Your task to perform on an android device: Go to ESPN.com Image 0: 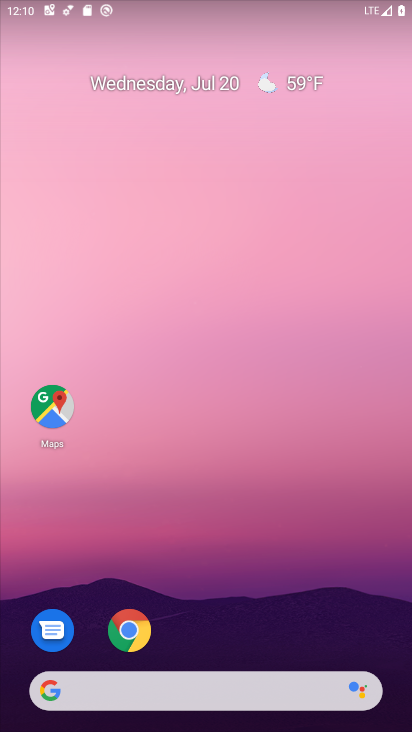
Step 0: click (129, 632)
Your task to perform on an android device: Go to ESPN.com Image 1: 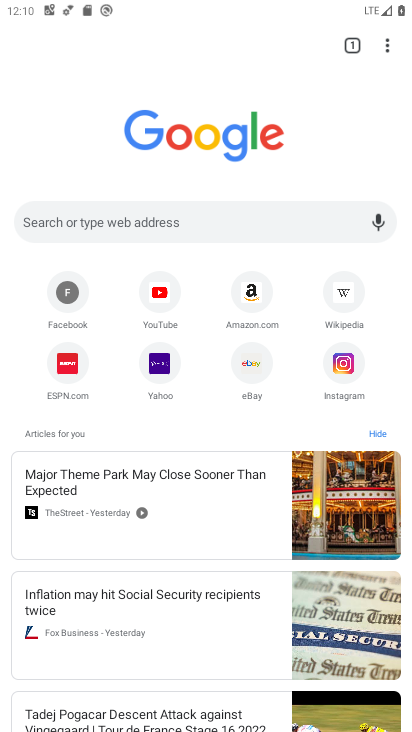
Step 1: click (139, 216)
Your task to perform on an android device: Go to ESPN.com Image 2: 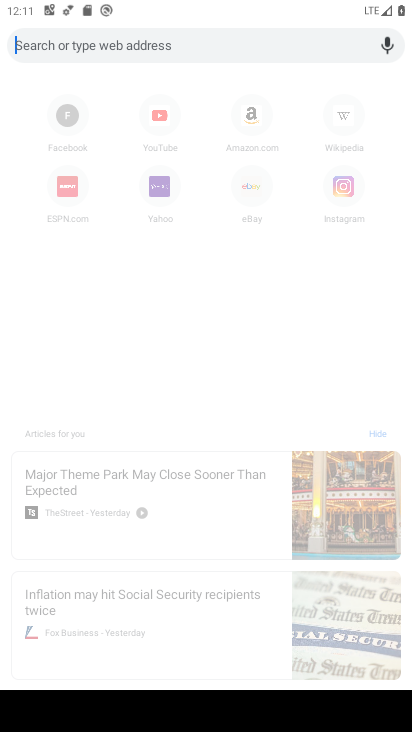
Step 2: type "espn.com"
Your task to perform on an android device: Go to ESPN.com Image 3: 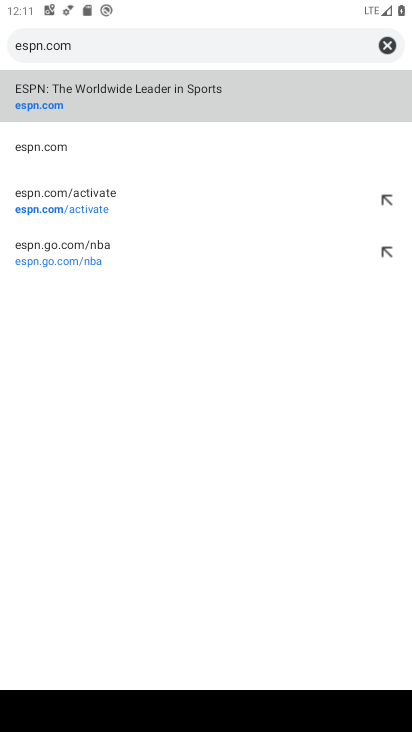
Step 3: click (36, 83)
Your task to perform on an android device: Go to ESPN.com Image 4: 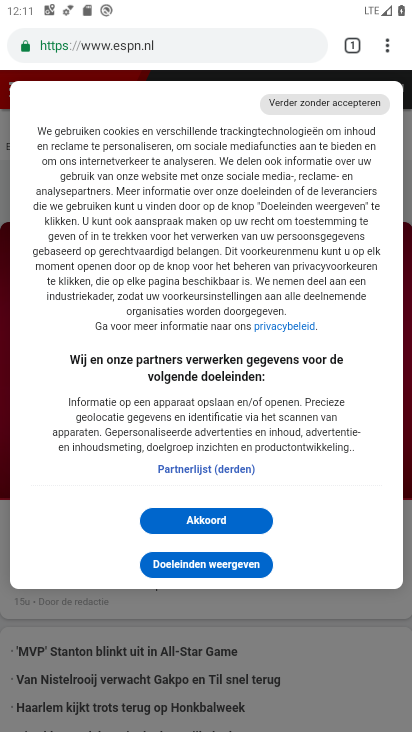
Step 4: click (202, 517)
Your task to perform on an android device: Go to ESPN.com Image 5: 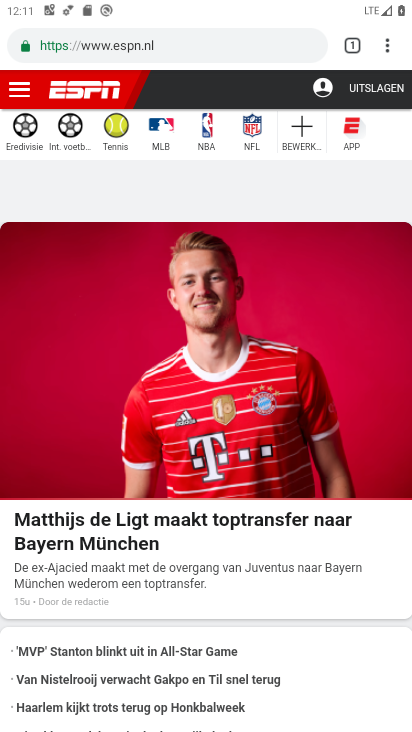
Step 5: task complete